Your task to perform on an android device: What's the weather going to be this weekend? Image 0: 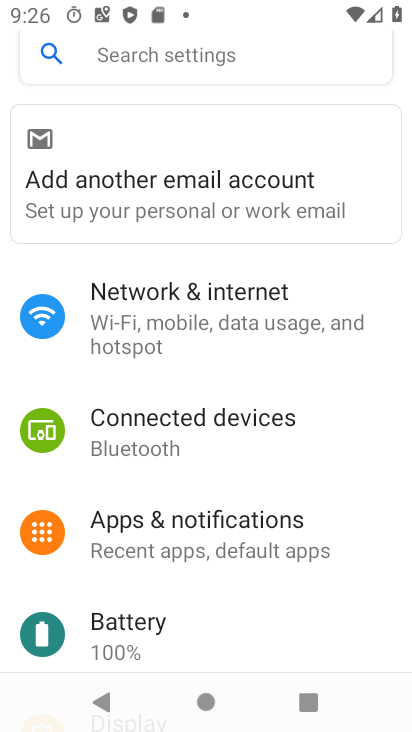
Step 0: press home button
Your task to perform on an android device: What's the weather going to be this weekend? Image 1: 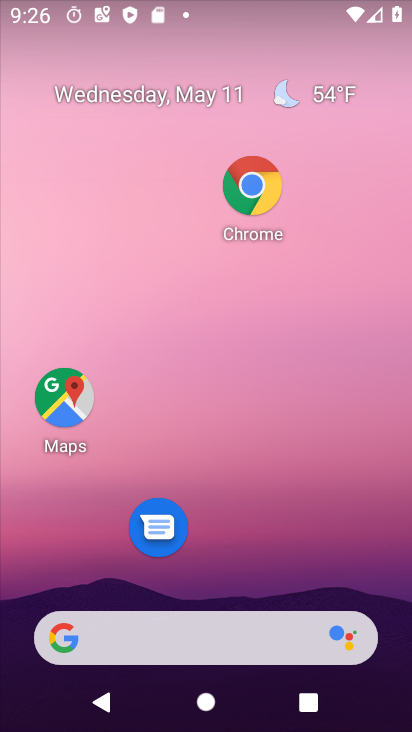
Step 1: drag from (246, 539) to (259, 4)
Your task to perform on an android device: What's the weather going to be this weekend? Image 2: 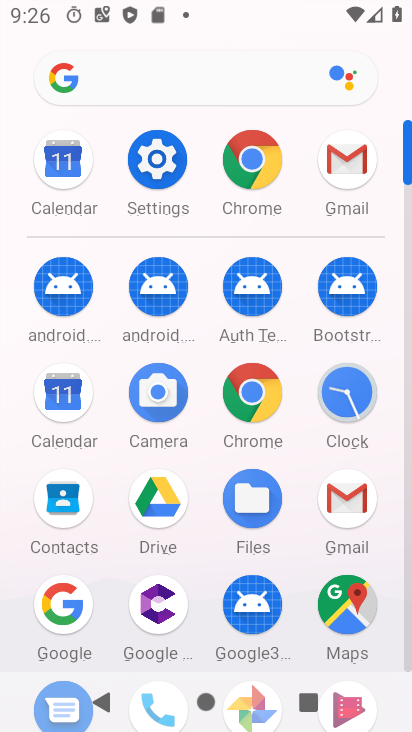
Step 2: click (65, 599)
Your task to perform on an android device: What's the weather going to be this weekend? Image 3: 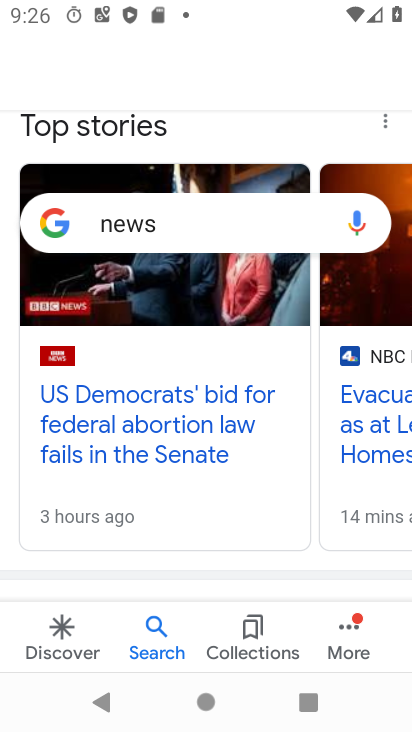
Step 3: click (200, 218)
Your task to perform on an android device: What's the weather going to be this weekend? Image 4: 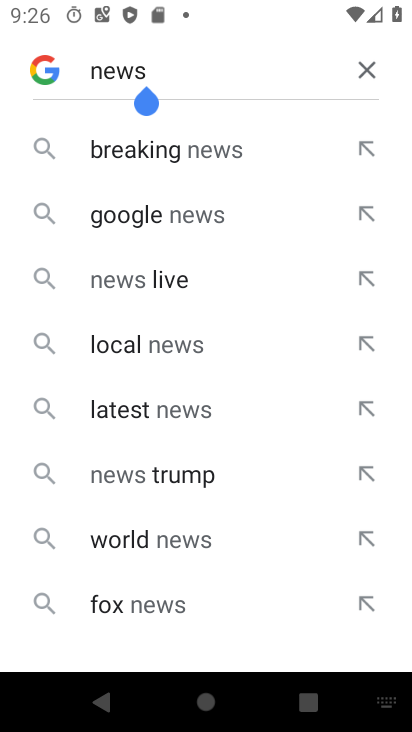
Step 4: click (350, 65)
Your task to perform on an android device: What's the weather going to be this weekend? Image 5: 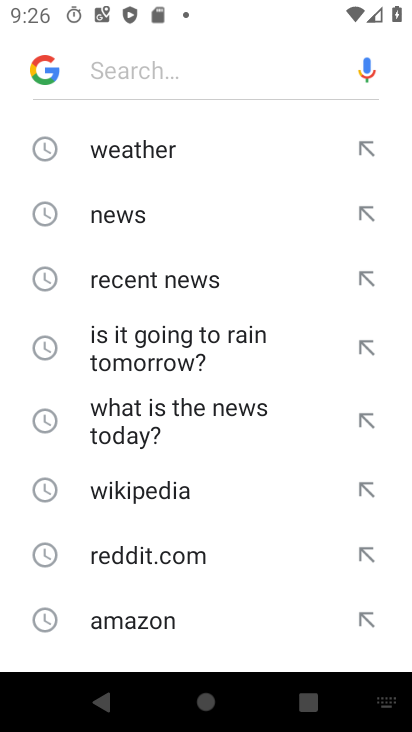
Step 5: type "weather going to be this weekend"
Your task to perform on an android device: What's the weather going to be this weekend? Image 6: 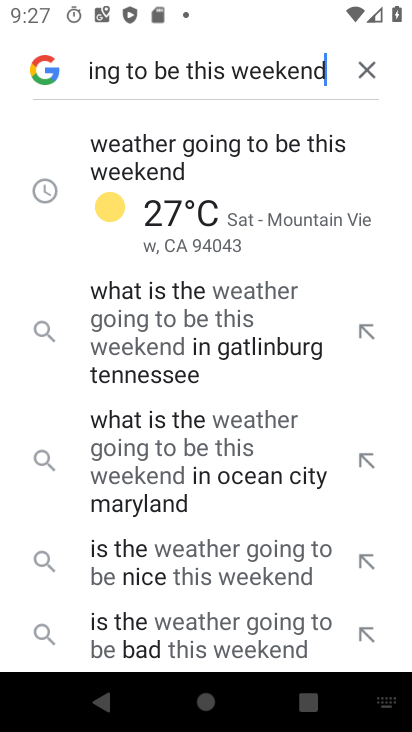
Step 6: click (157, 150)
Your task to perform on an android device: What's the weather going to be this weekend? Image 7: 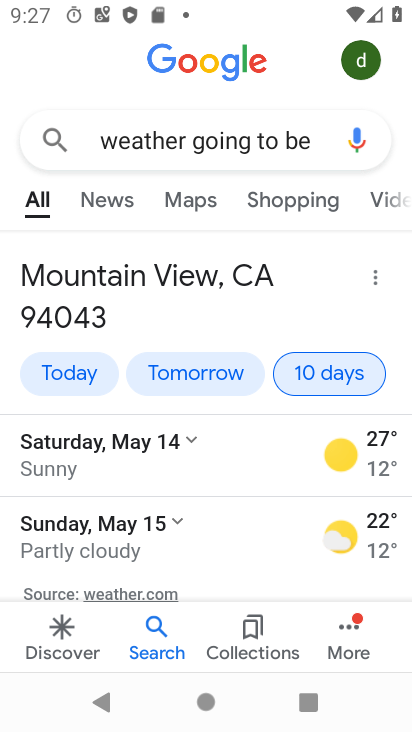
Step 7: task complete